Your task to perform on an android device: check google app version Image 0: 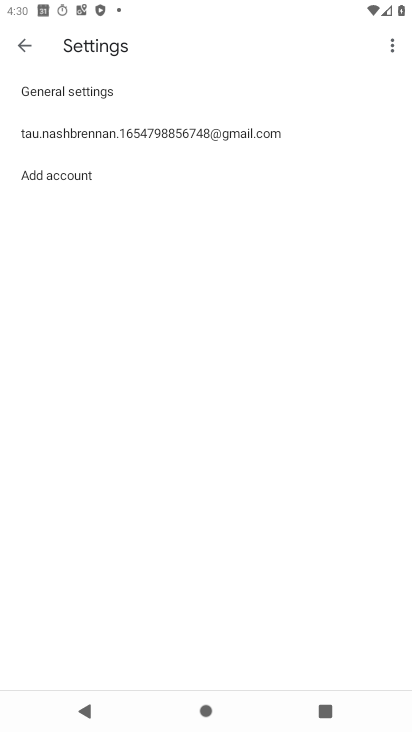
Step 0: press home button
Your task to perform on an android device: check google app version Image 1: 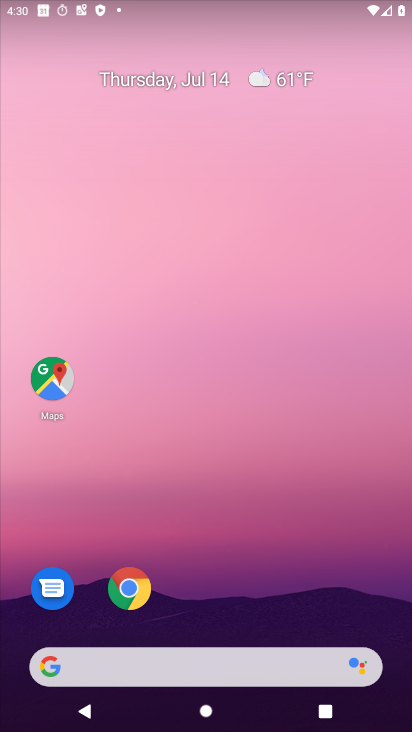
Step 1: drag from (228, 664) to (322, 201)
Your task to perform on an android device: check google app version Image 2: 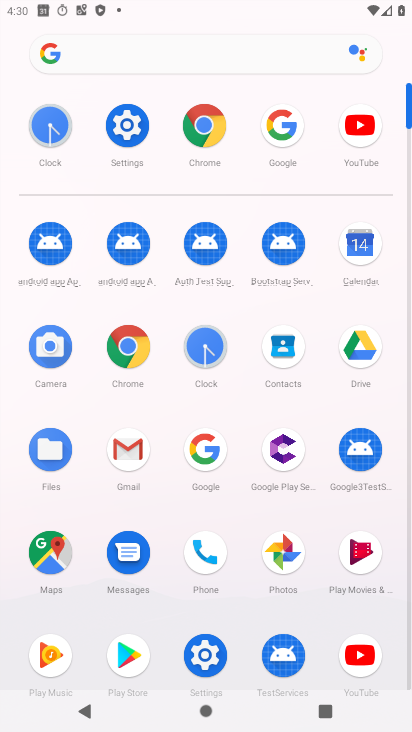
Step 2: click (203, 449)
Your task to perform on an android device: check google app version Image 3: 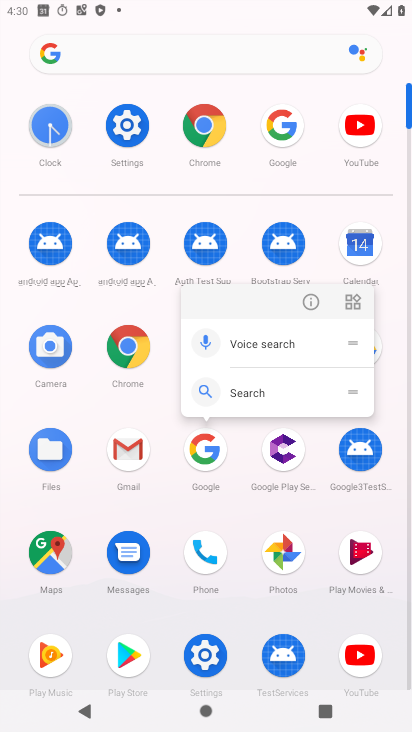
Step 3: click (311, 299)
Your task to perform on an android device: check google app version Image 4: 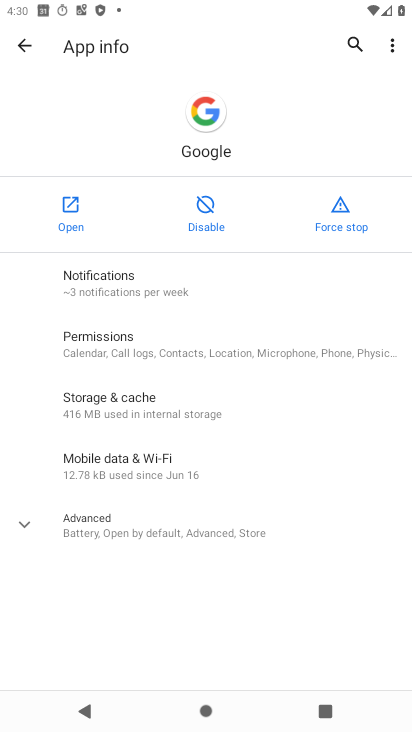
Step 4: click (150, 532)
Your task to perform on an android device: check google app version Image 5: 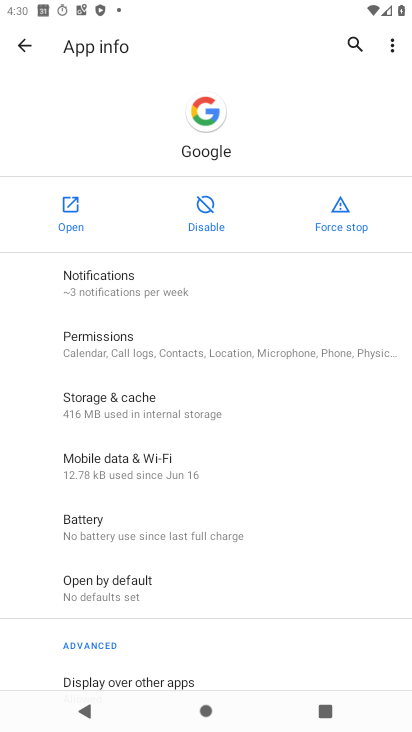
Step 5: task complete